Your task to perform on an android device: toggle improve location accuracy Image 0: 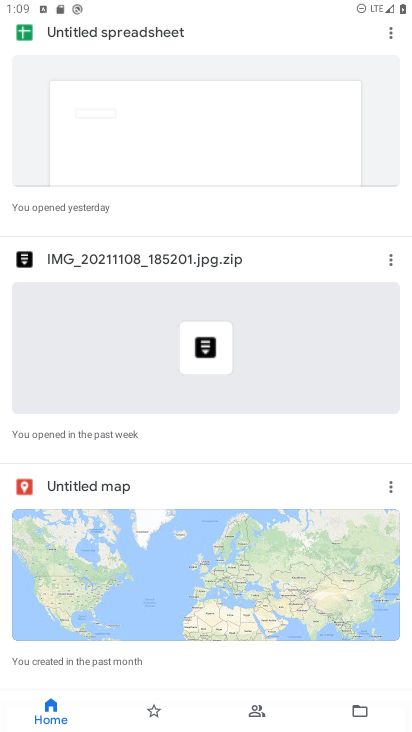
Step 0: press home button
Your task to perform on an android device: toggle improve location accuracy Image 1: 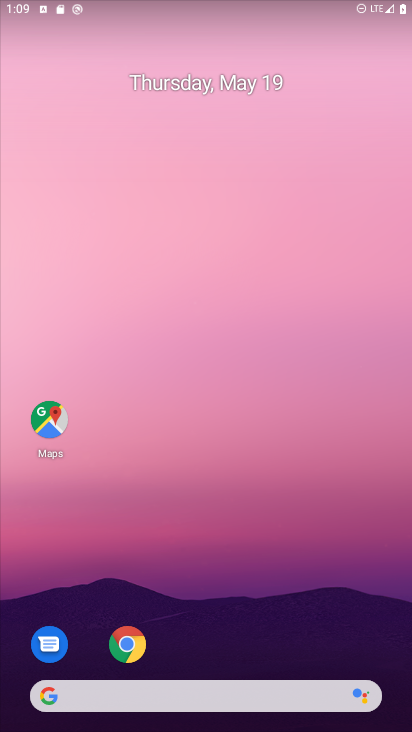
Step 1: drag from (344, 641) to (238, 65)
Your task to perform on an android device: toggle improve location accuracy Image 2: 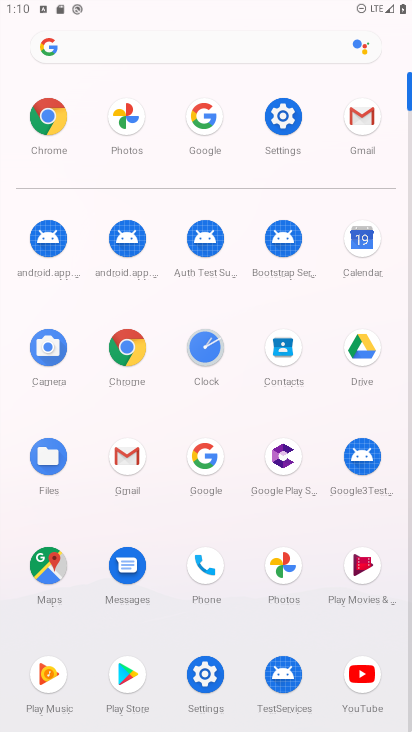
Step 2: click (217, 674)
Your task to perform on an android device: toggle improve location accuracy Image 3: 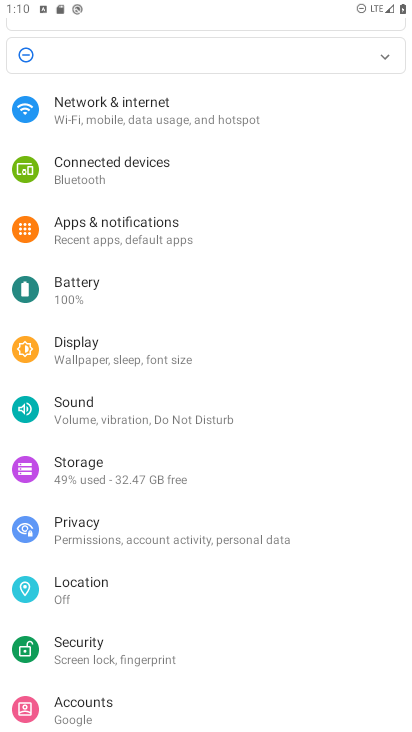
Step 3: click (132, 578)
Your task to perform on an android device: toggle improve location accuracy Image 4: 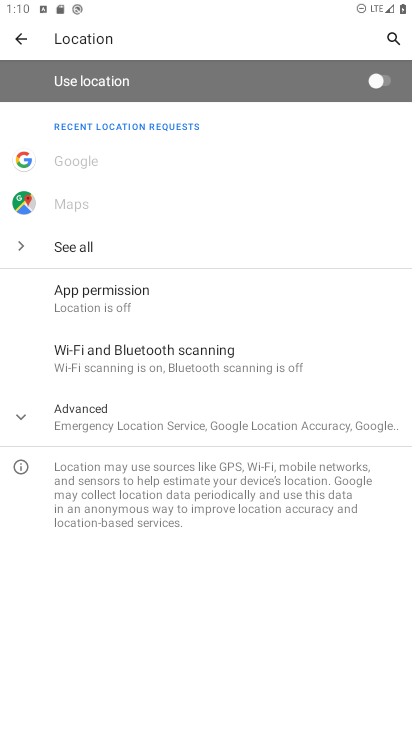
Step 4: click (162, 404)
Your task to perform on an android device: toggle improve location accuracy Image 5: 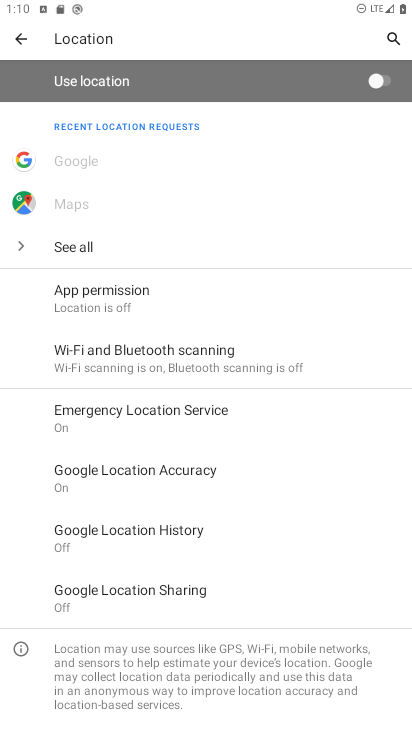
Step 5: click (159, 482)
Your task to perform on an android device: toggle improve location accuracy Image 6: 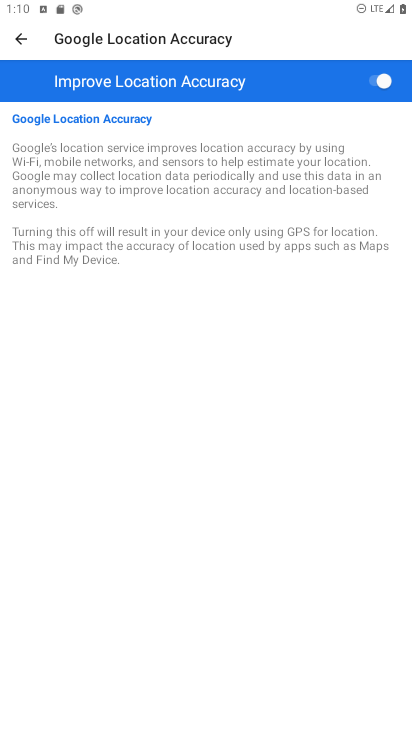
Step 6: click (356, 84)
Your task to perform on an android device: toggle improve location accuracy Image 7: 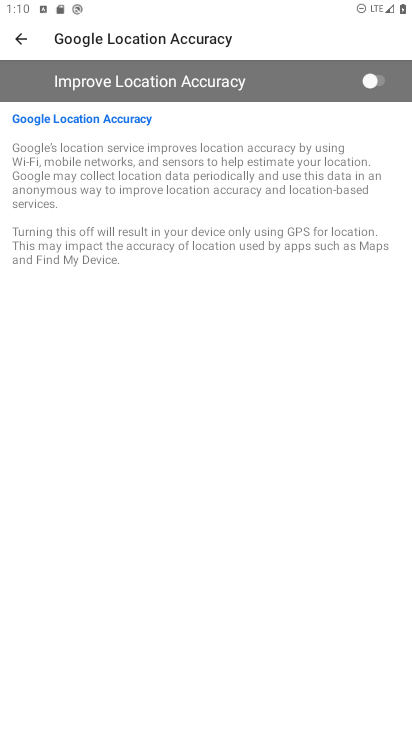
Step 7: task complete